Your task to perform on an android device: set the stopwatch Image 0: 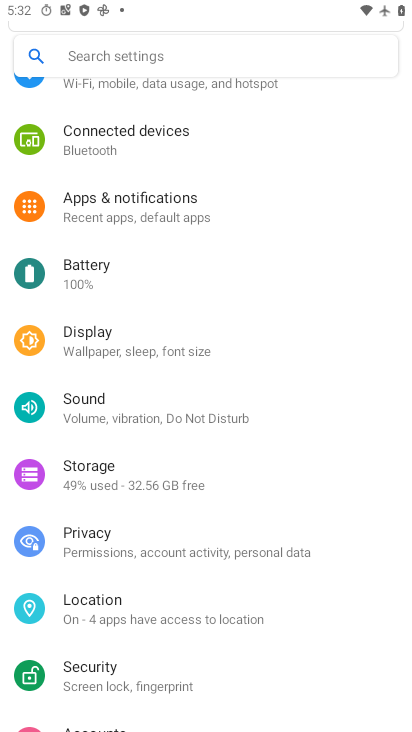
Step 0: press home button
Your task to perform on an android device: set the stopwatch Image 1: 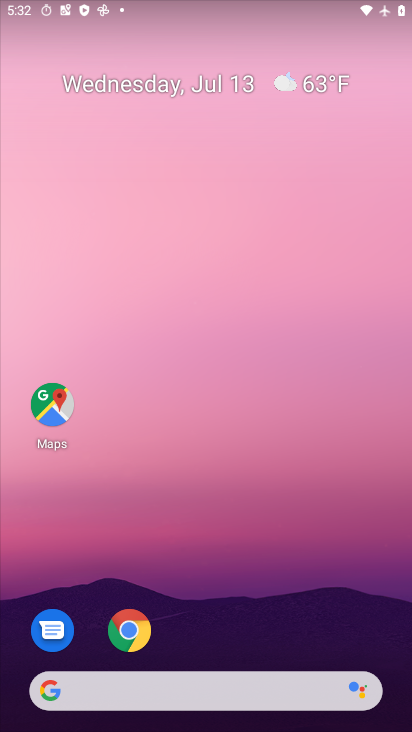
Step 1: drag from (227, 655) to (230, 113)
Your task to perform on an android device: set the stopwatch Image 2: 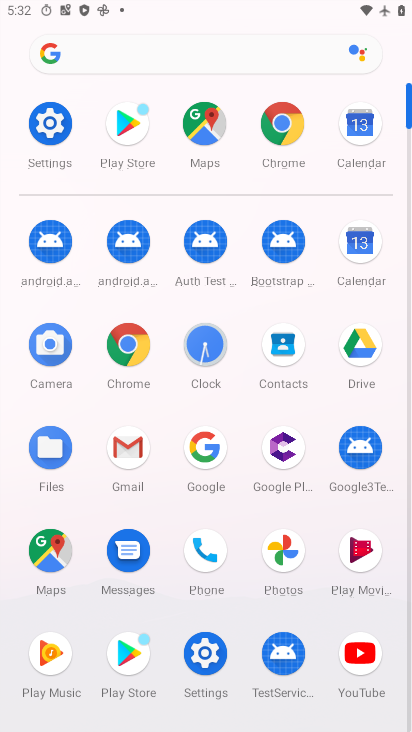
Step 2: click (200, 340)
Your task to perform on an android device: set the stopwatch Image 3: 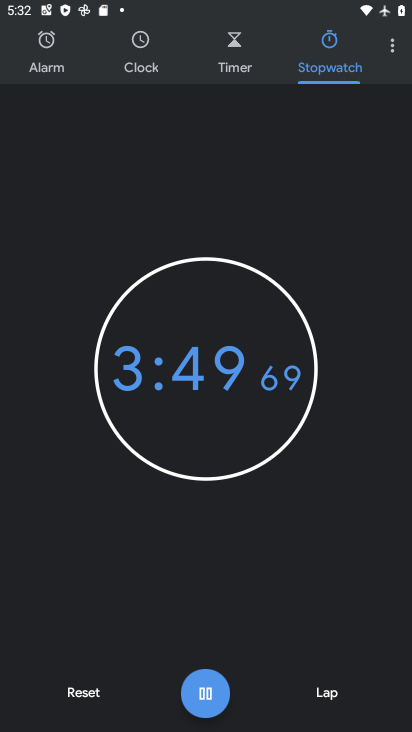
Step 3: task complete